Your task to perform on an android device: all mails in gmail Image 0: 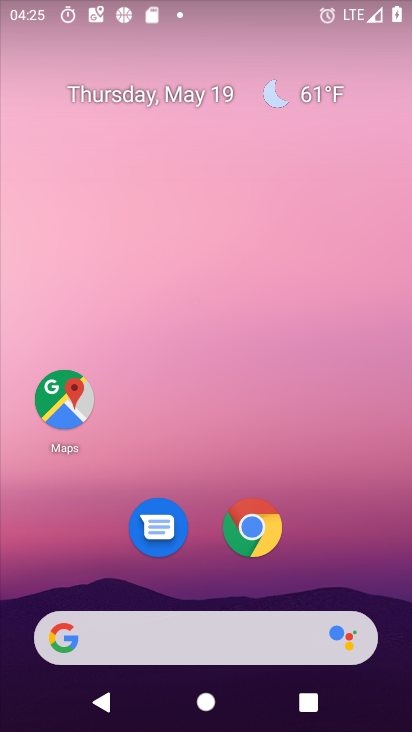
Step 0: drag from (197, 576) to (325, 94)
Your task to perform on an android device: all mails in gmail Image 1: 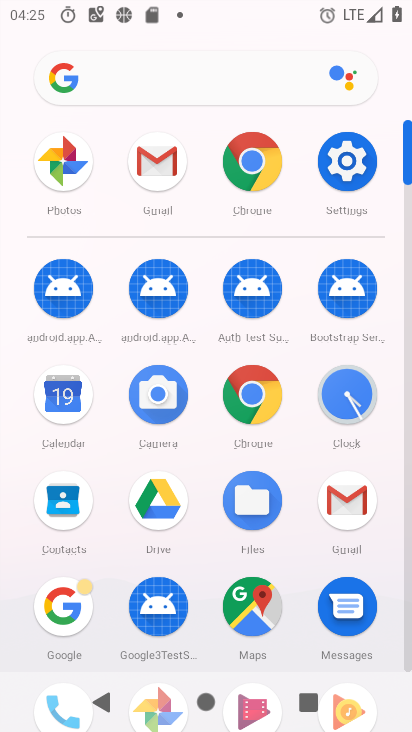
Step 1: click (156, 147)
Your task to perform on an android device: all mails in gmail Image 2: 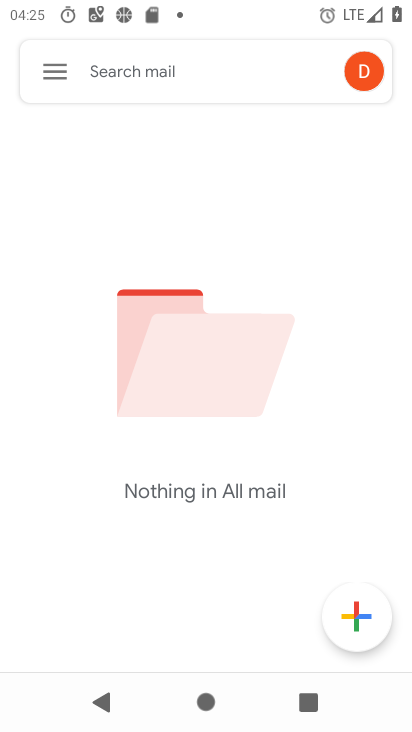
Step 2: task complete